Your task to perform on an android device: set default search engine in the chrome app Image 0: 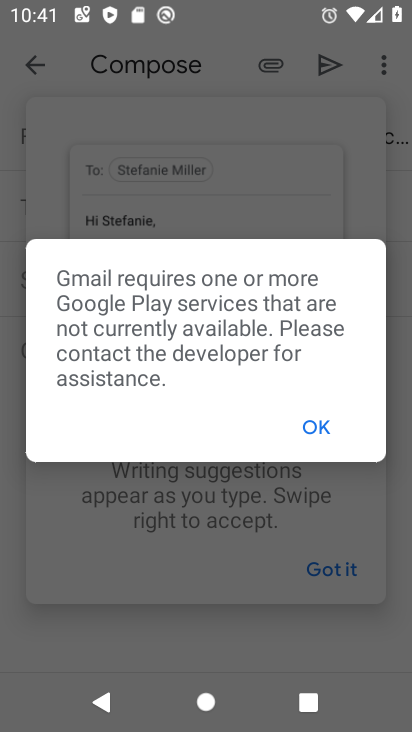
Step 0: press home button
Your task to perform on an android device: set default search engine in the chrome app Image 1: 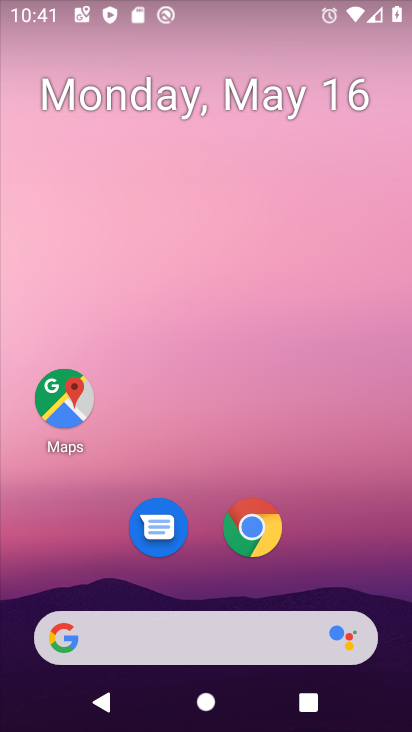
Step 1: click (253, 537)
Your task to perform on an android device: set default search engine in the chrome app Image 2: 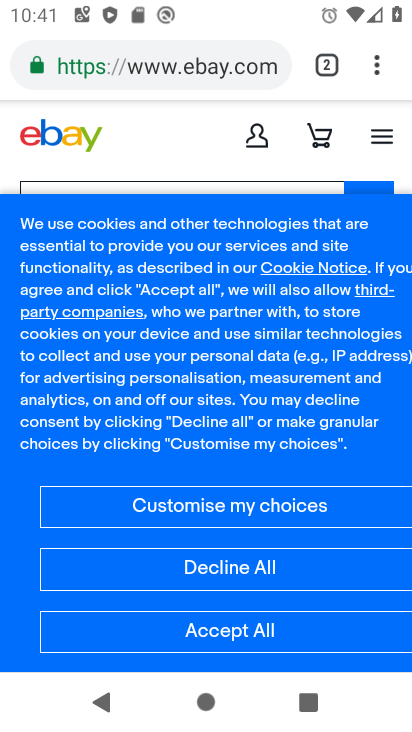
Step 2: click (378, 67)
Your task to perform on an android device: set default search engine in the chrome app Image 3: 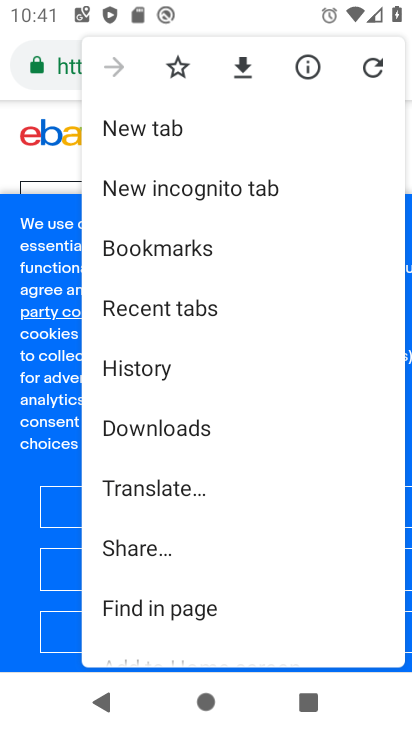
Step 3: drag from (264, 510) to (264, 195)
Your task to perform on an android device: set default search engine in the chrome app Image 4: 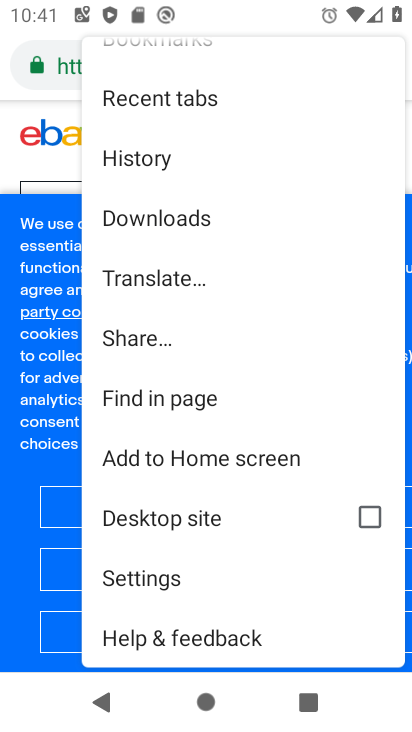
Step 4: click (169, 575)
Your task to perform on an android device: set default search engine in the chrome app Image 5: 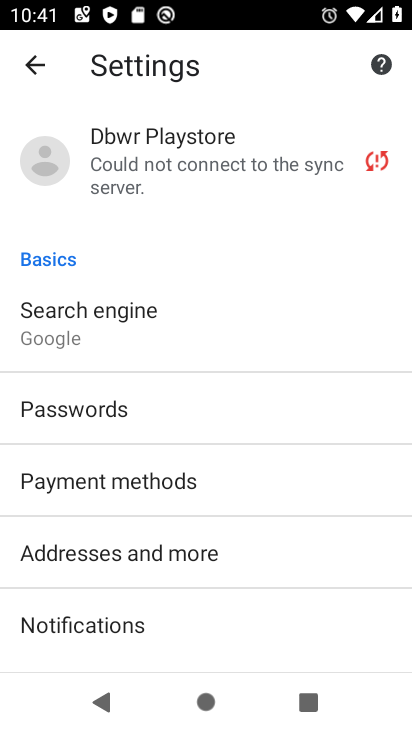
Step 5: click (59, 337)
Your task to perform on an android device: set default search engine in the chrome app Image 6: 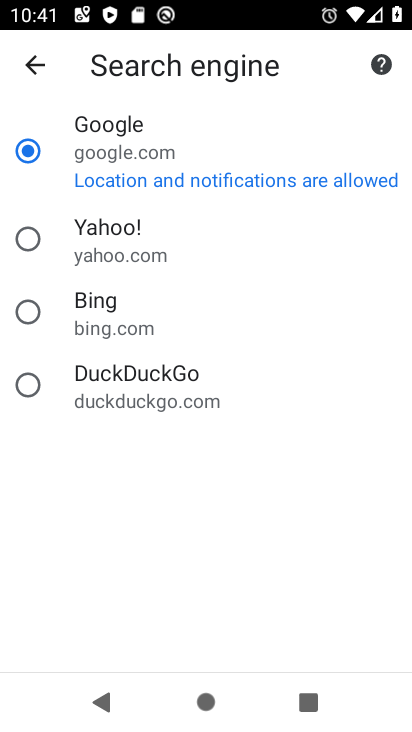
Step 6: click (49, 238)
Your task to perform on an android device: set default search engine in the chrome app Image 7: 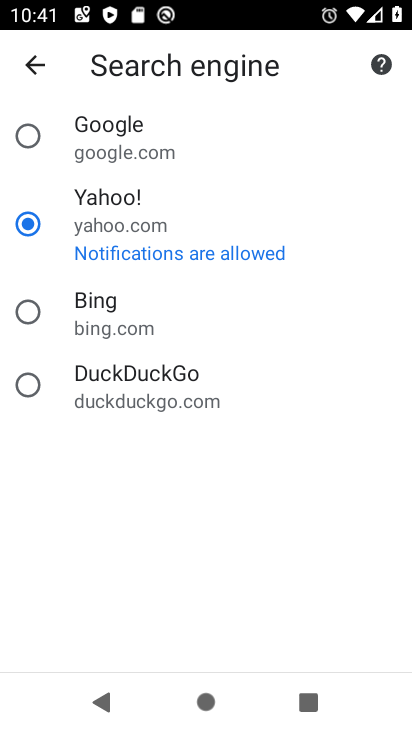
Step 7: task complete